Your task to perform on an android device: turn on showing notifications on the lock screen Image 0: 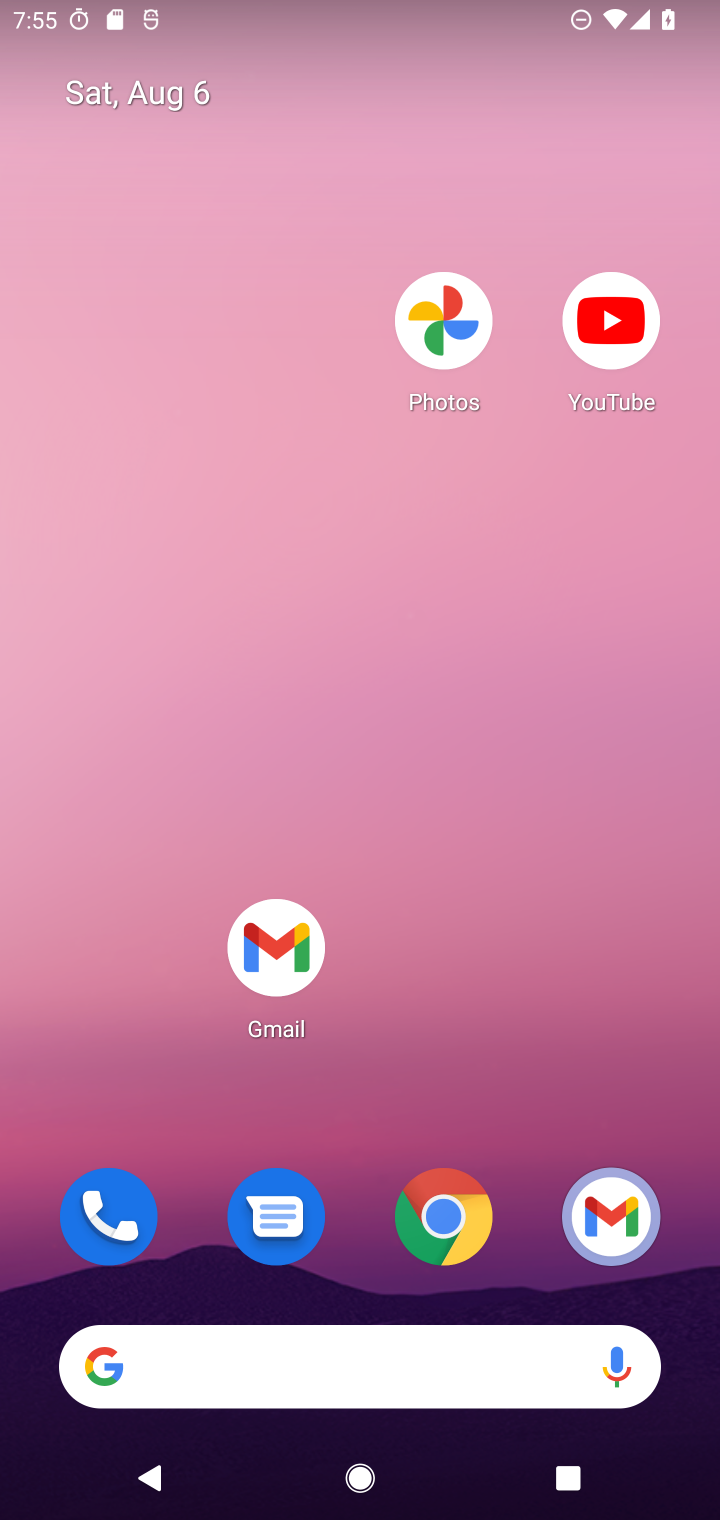
Step 0: drag from (513, 1213) to (460, 268)
Your task to perform on an android device: turn on showing notifications on the lock screen Image 1: 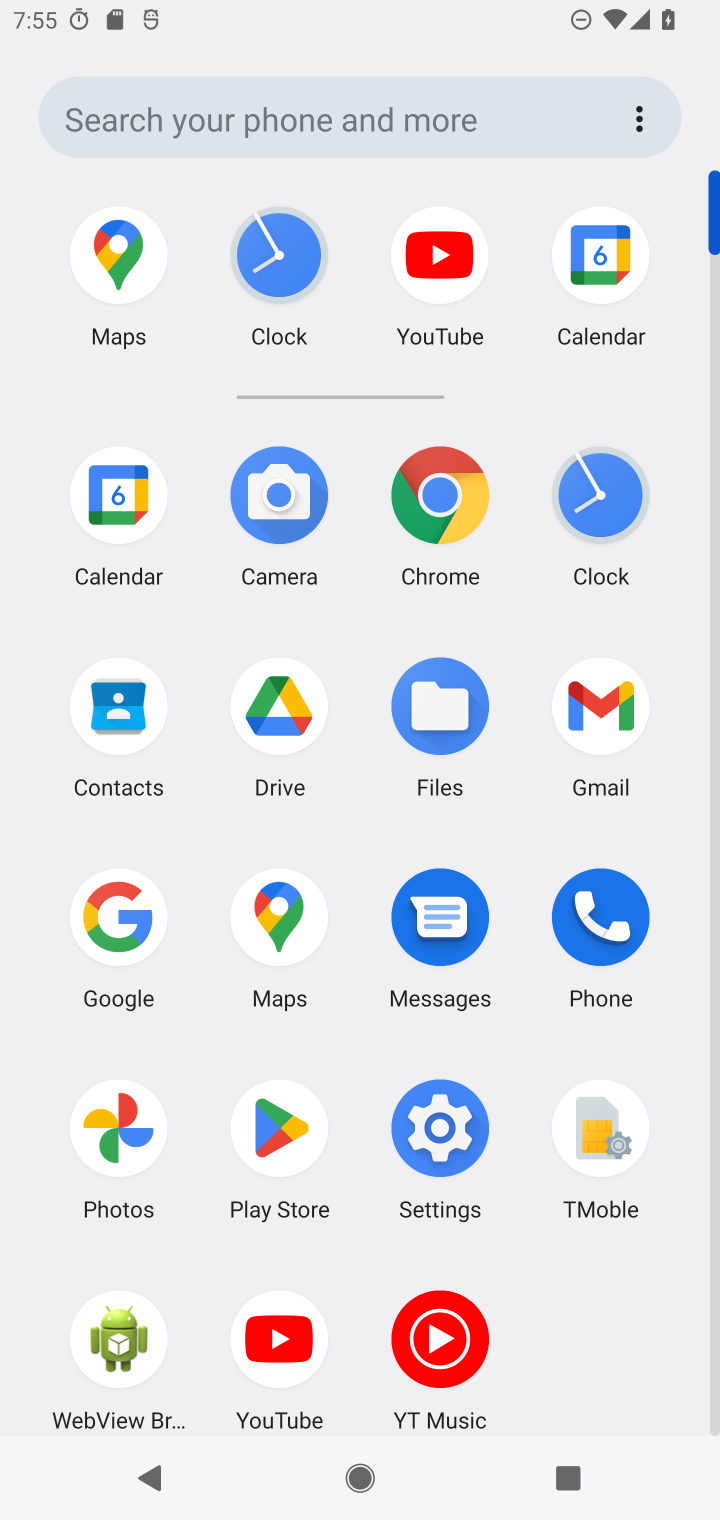
Step 1: click (446, 1127)
Your task to perform on an android device: turn on showing notifications on the lock screen Image 2: 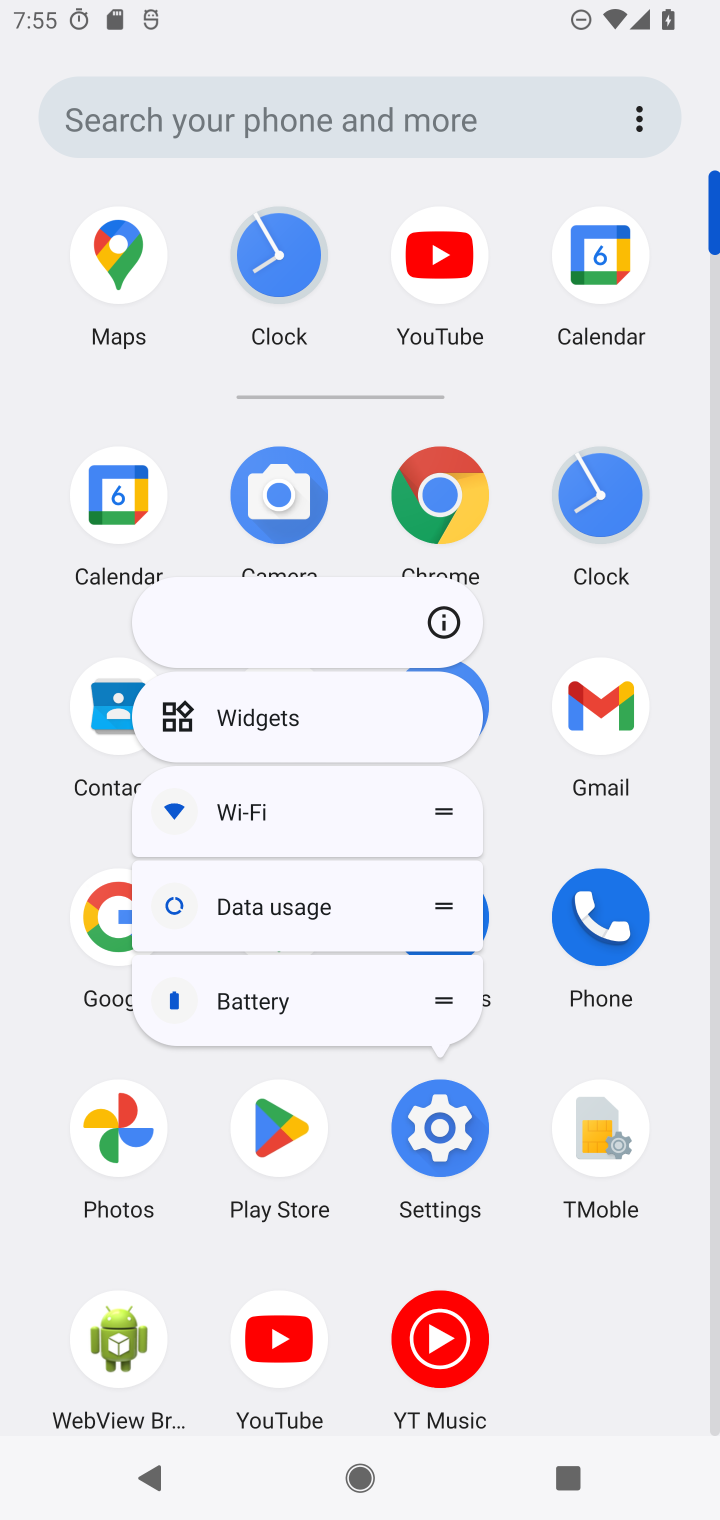
Step 2: click (426, 1141)
Your task to perform on an android device: turn on showing notifications on the lock screen Image 3: 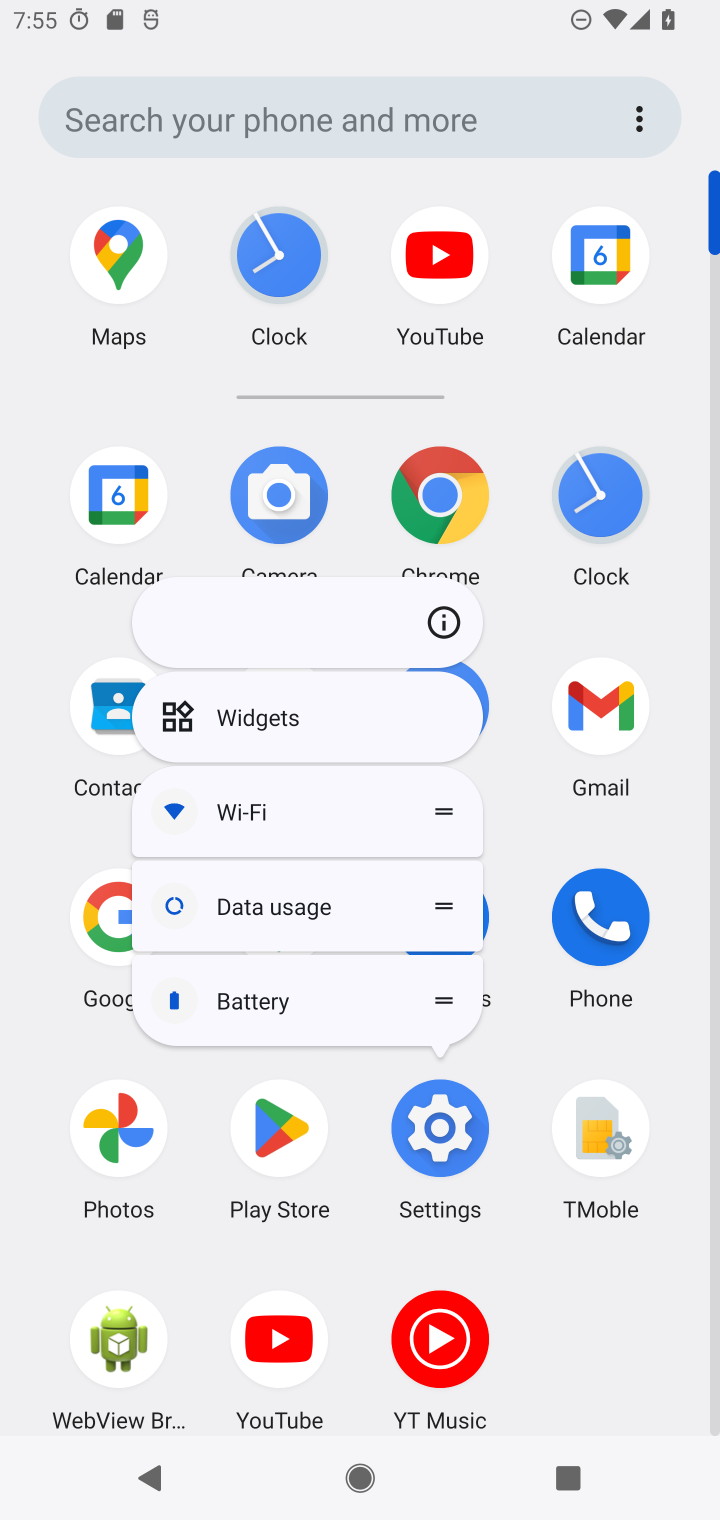
Step 3: click (440, 1126)
Your task to perform on an android device: turn on showing notifications on the lock screen Image 4: 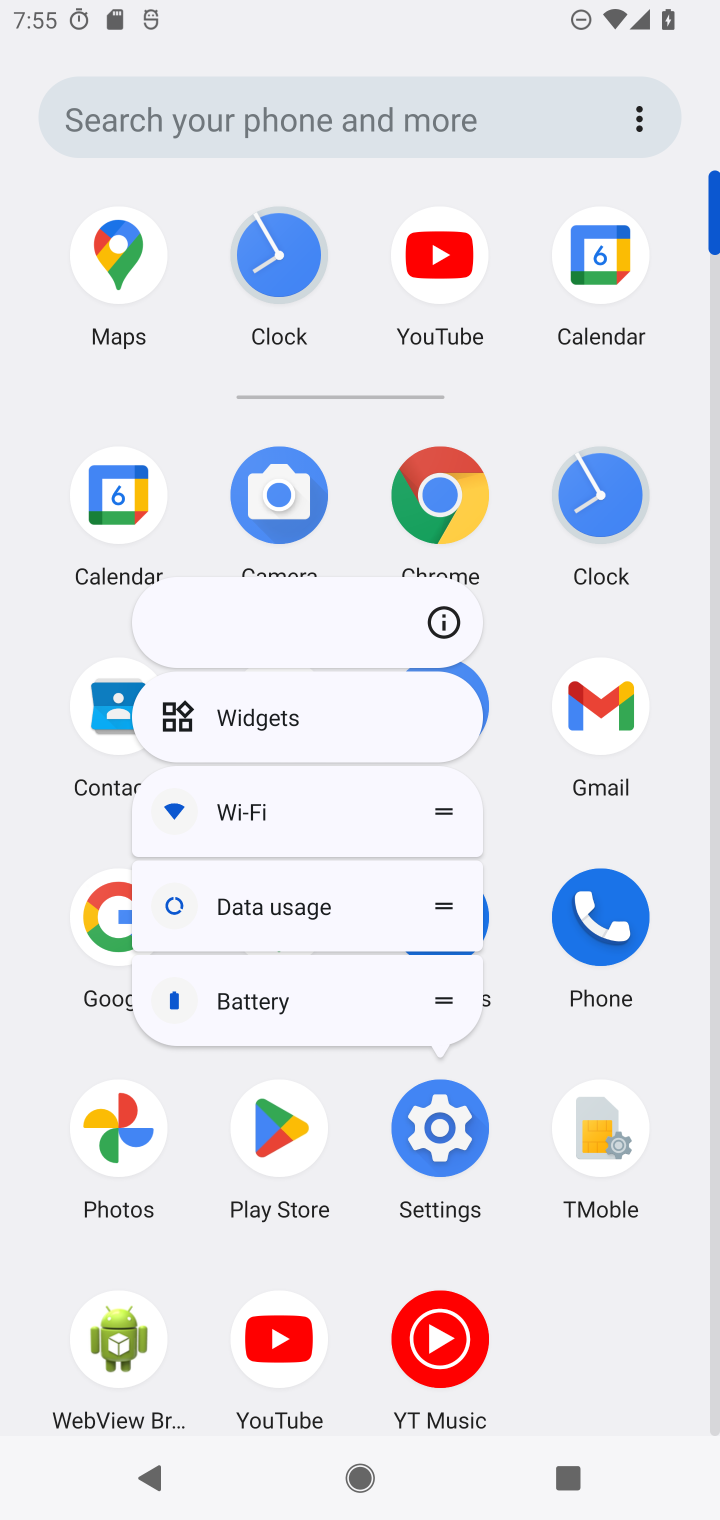
Step 4: click (595, 1301)
Your task to perform on an android device: turn on showing notifications on the lock screen Image 5: 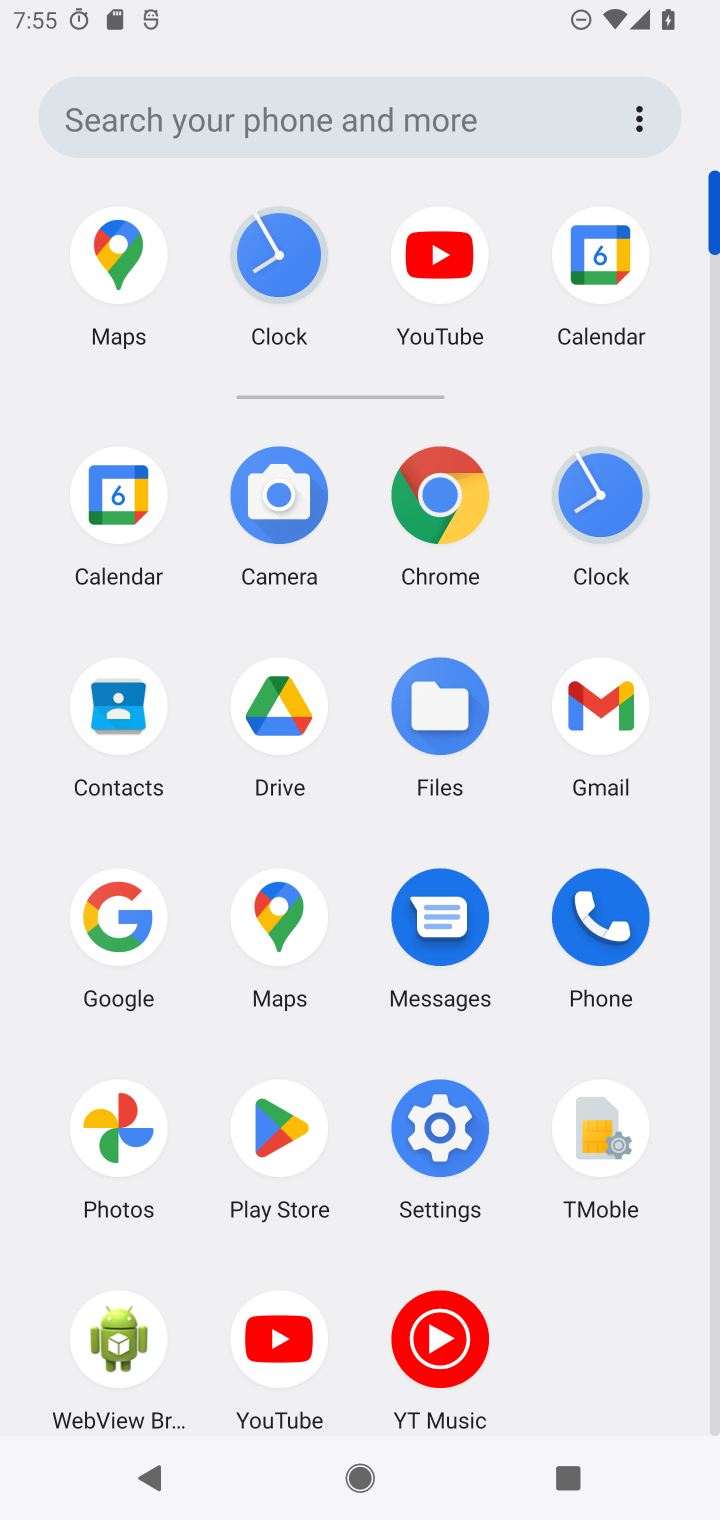
Step 5: click (446, 1141)
Your task to perform on an android device: turn on showing notifications on the lock screen Image 6: 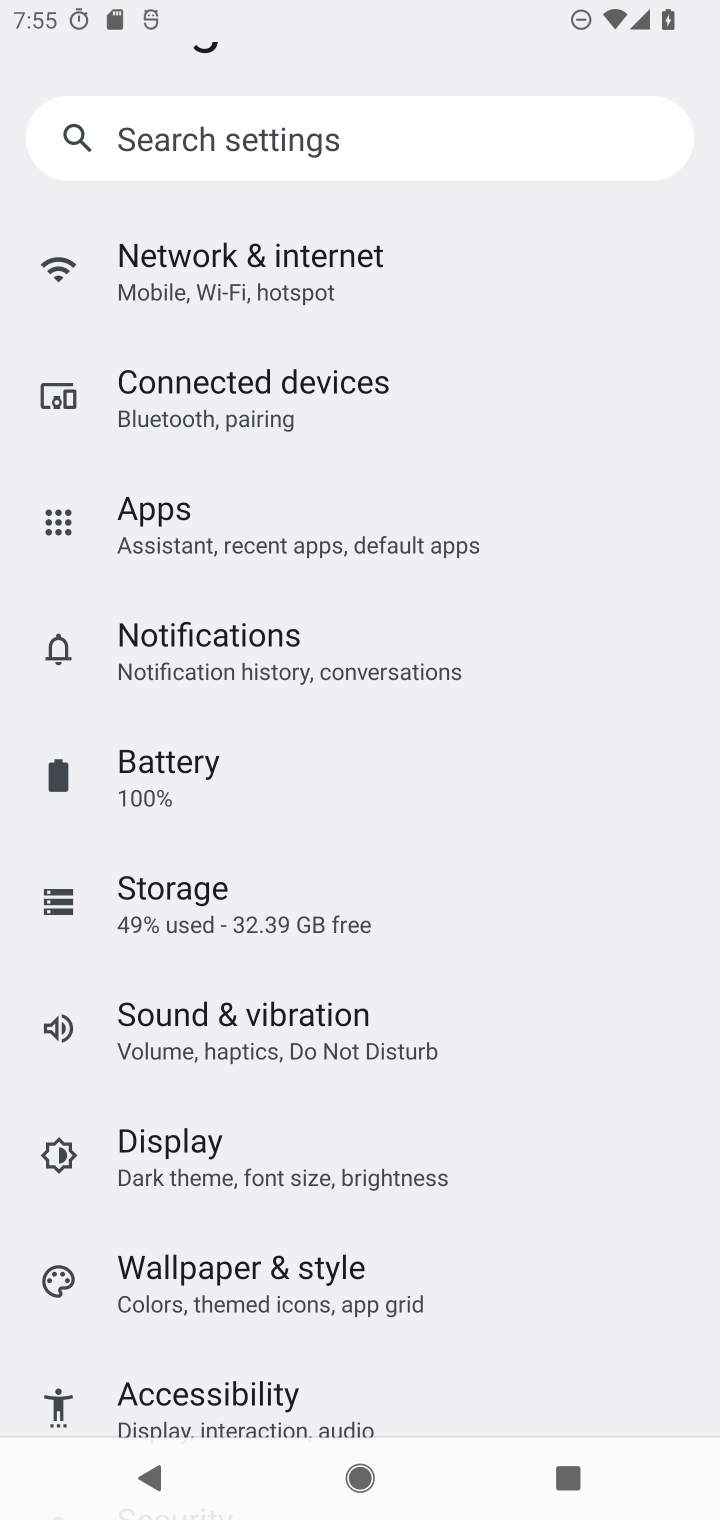
Step 6: click (344, 687)
Your task to perform on an android device: turn on showing notifications on the lock screen Image 7: 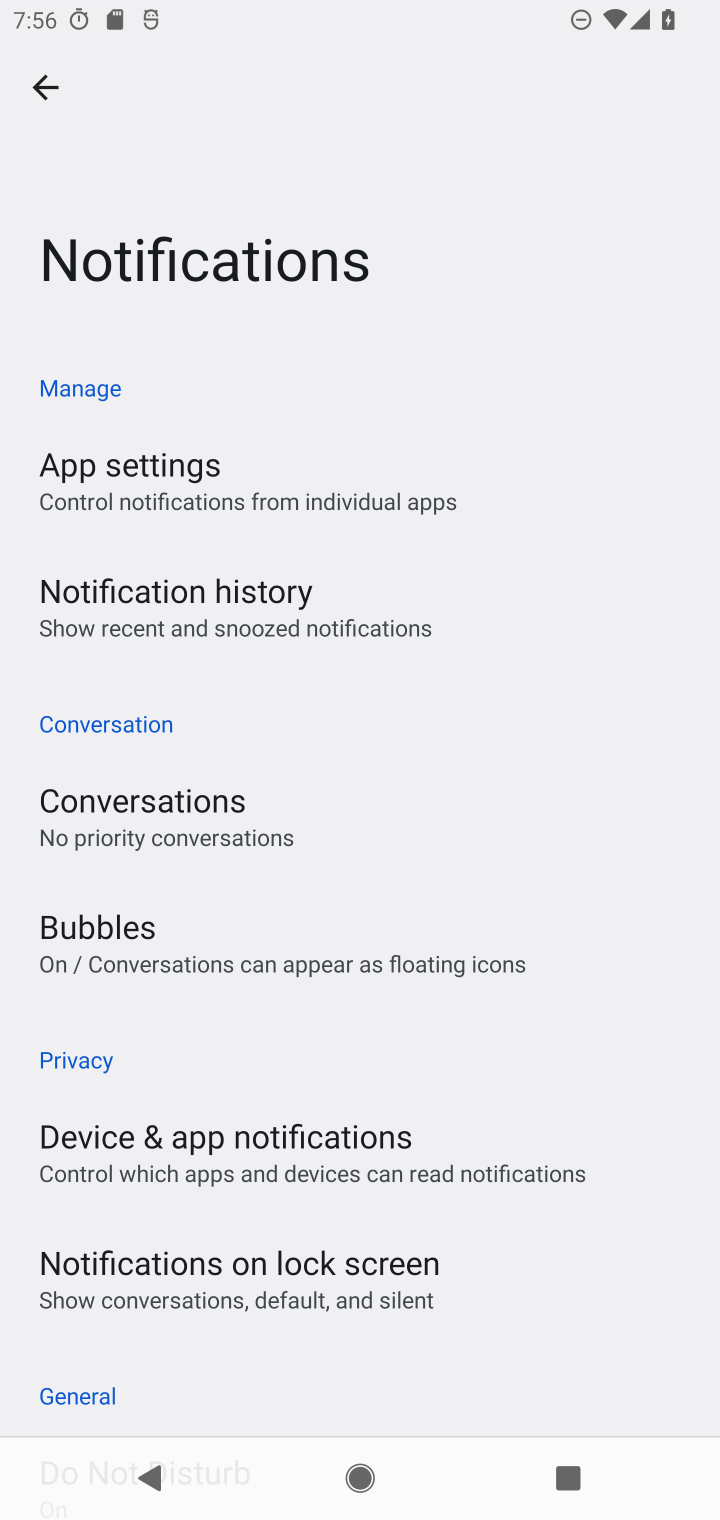
Step 7: click (321, 1288)
Your task to perform on an android device: turn on showing notifications on the lock screen Image 8: 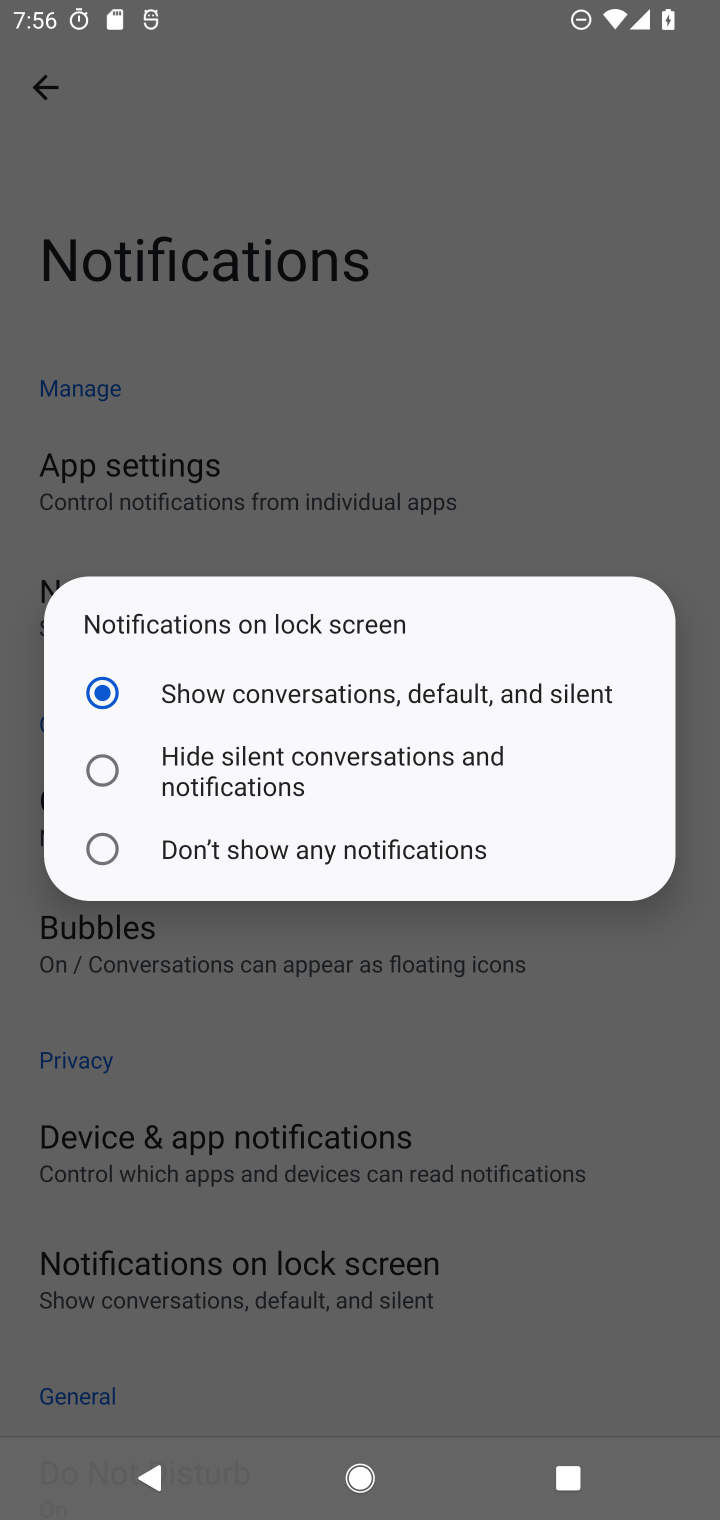
Step 8: task complete